Your task to perform on an android device: Open sound settings Image 0: 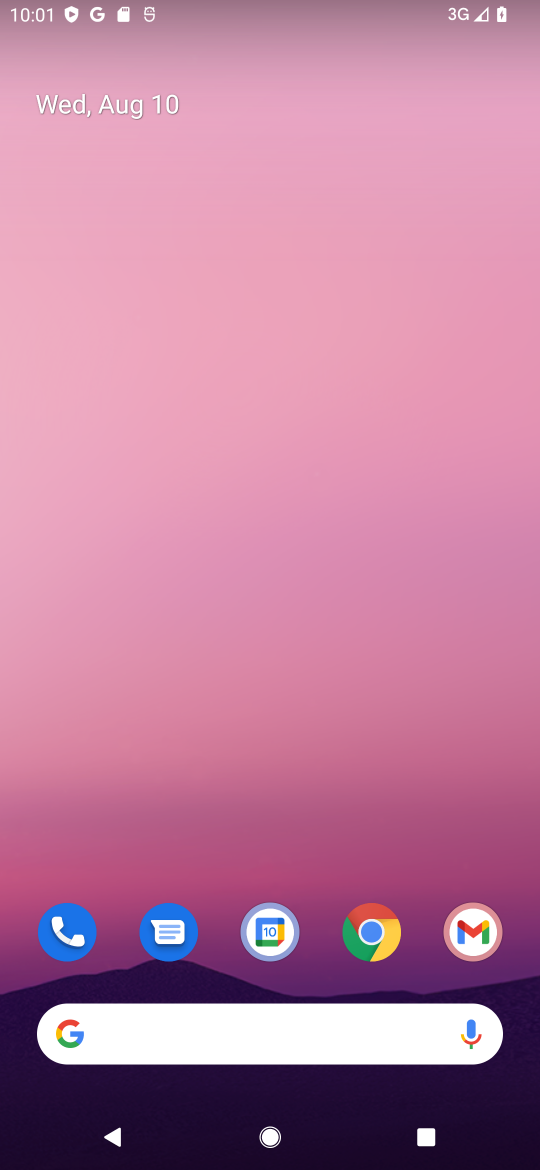
Step 0: drag from (312, 856) to (186, 19)
Your task to perform on an android device: Open sound settings Image 1: 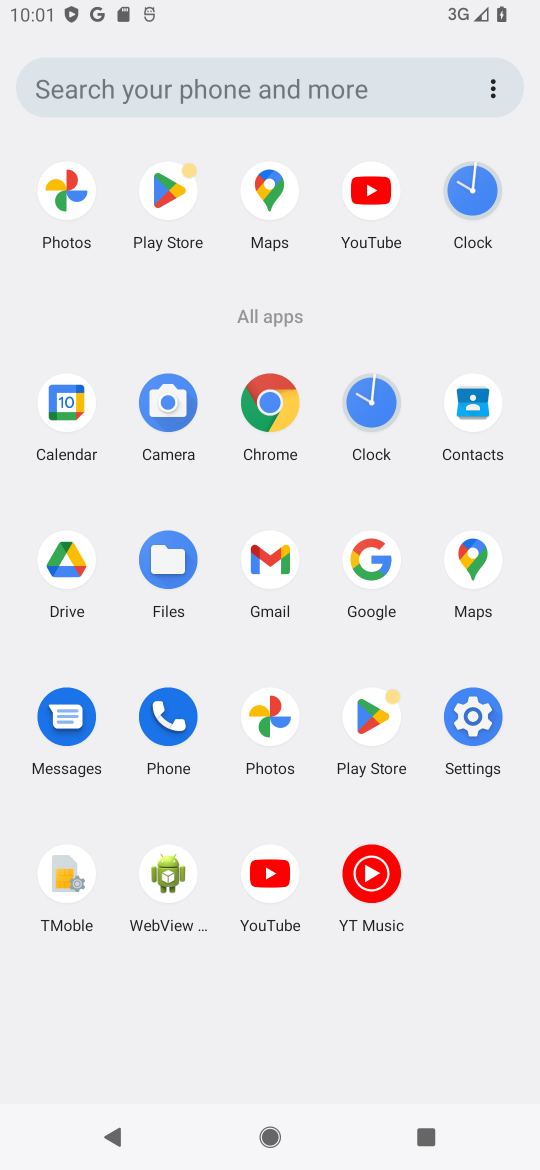
Step 1: click (479, 717)
Your task to perform on an android device: Open sound settings Image 2: 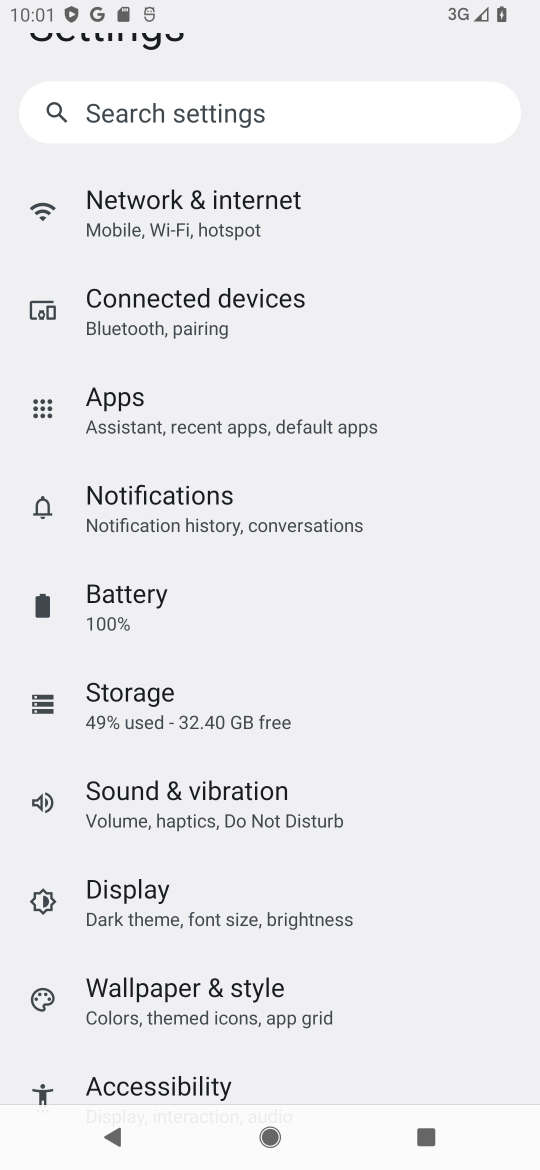
Step 2: click (151, 780)
Your task to perform on an android device: Open sound settings Image 3: 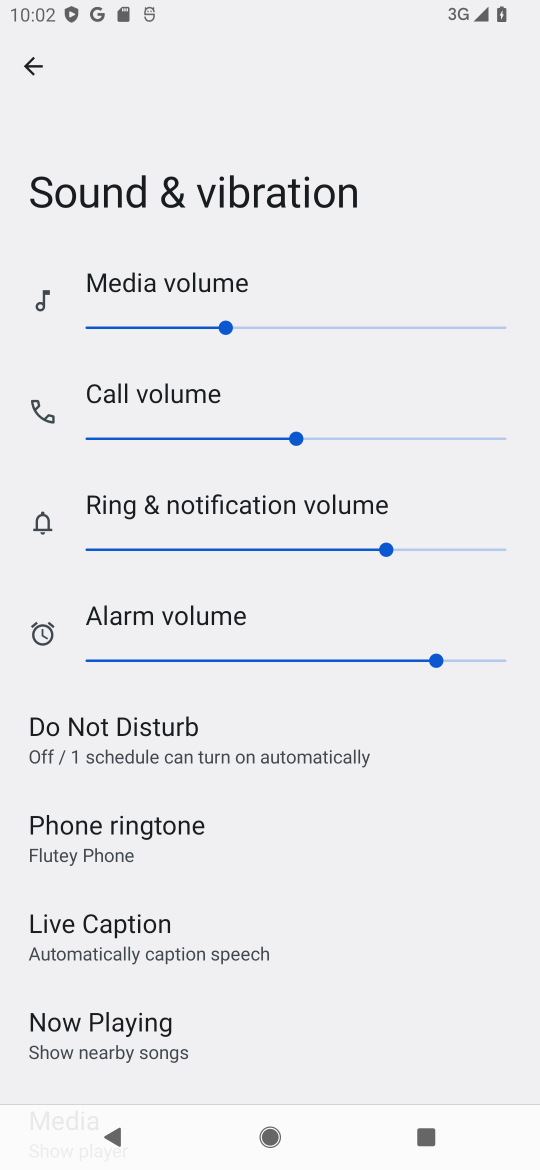
Step 3: task complete